Your task to perform on an android device: Open sound settings Image 0: 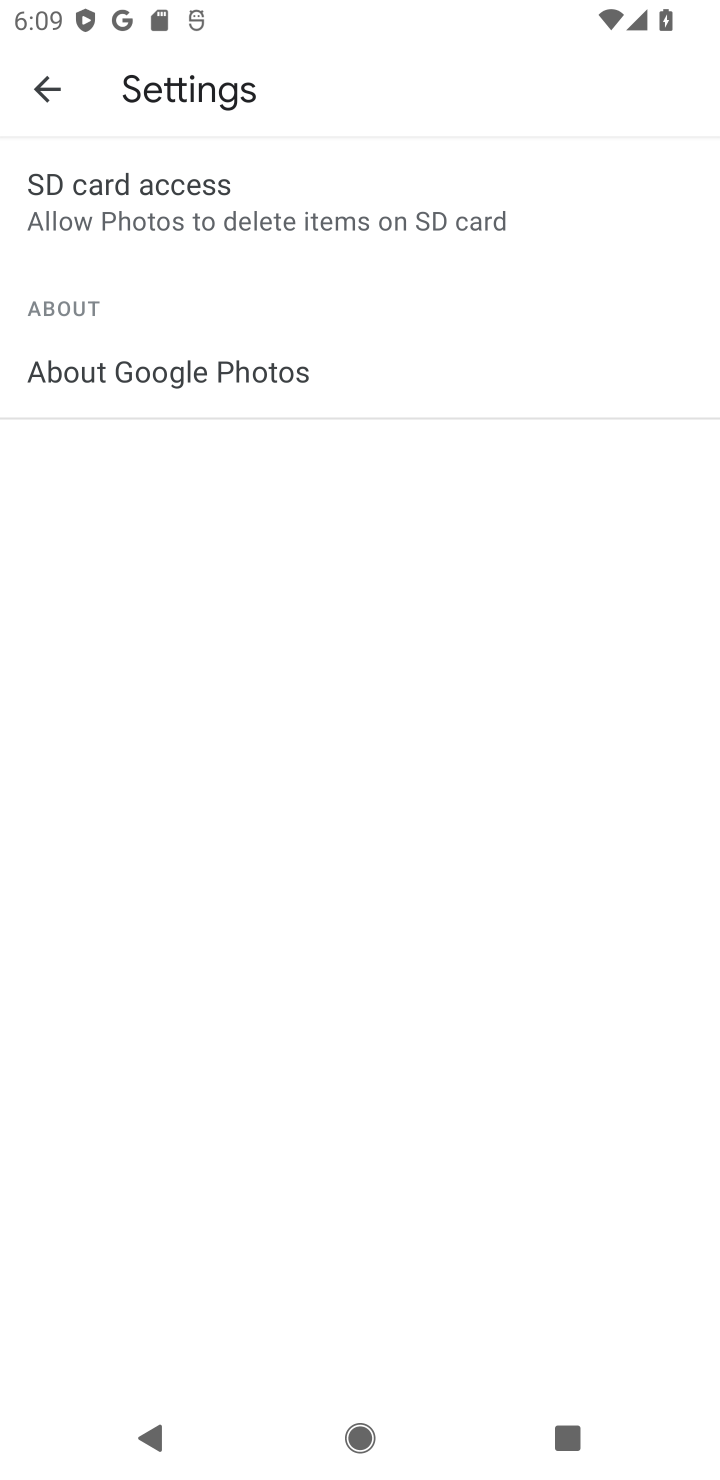
Step 0: press home button
Your task to perform on an android device: Open sound settings Image 1: 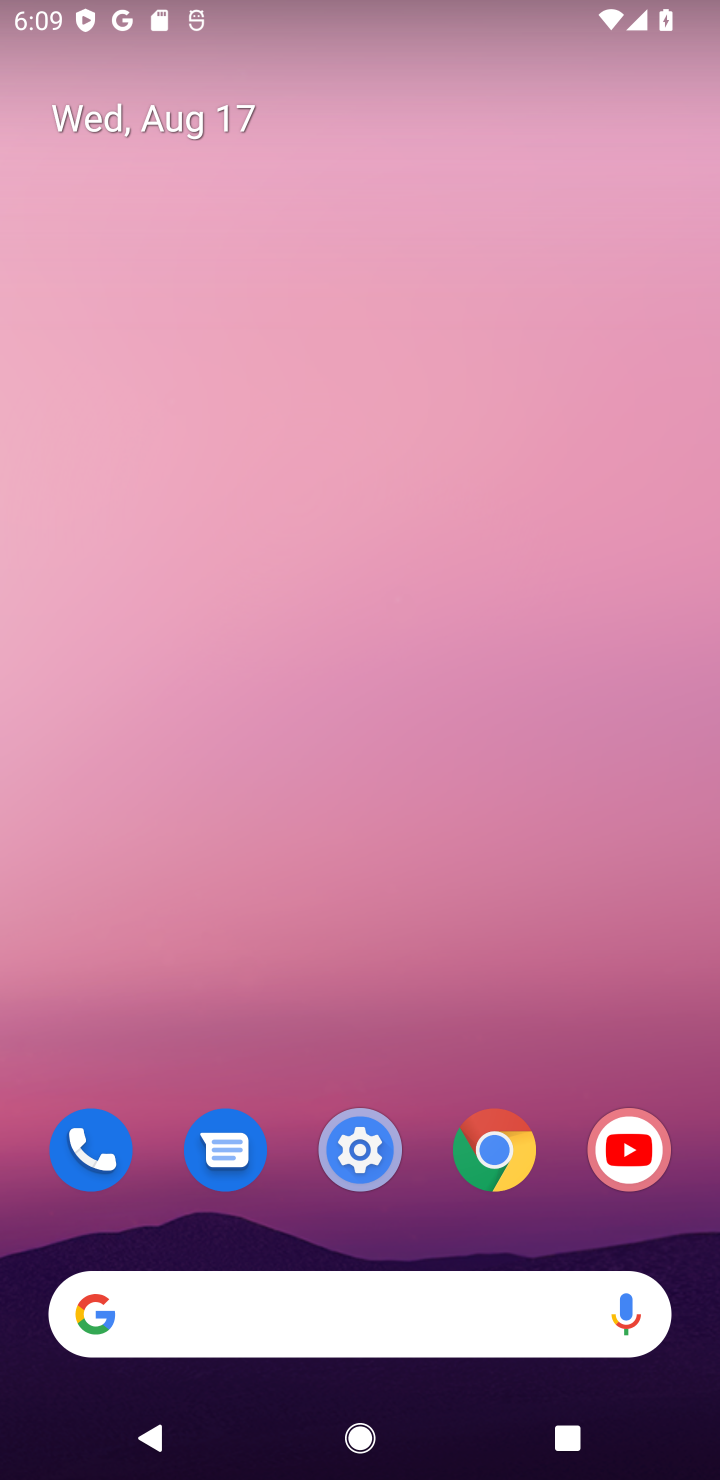
Step 1: drag from (296, 1001) to (299, 368)
Your task to perform on an android device: Open sound settings Image 2: 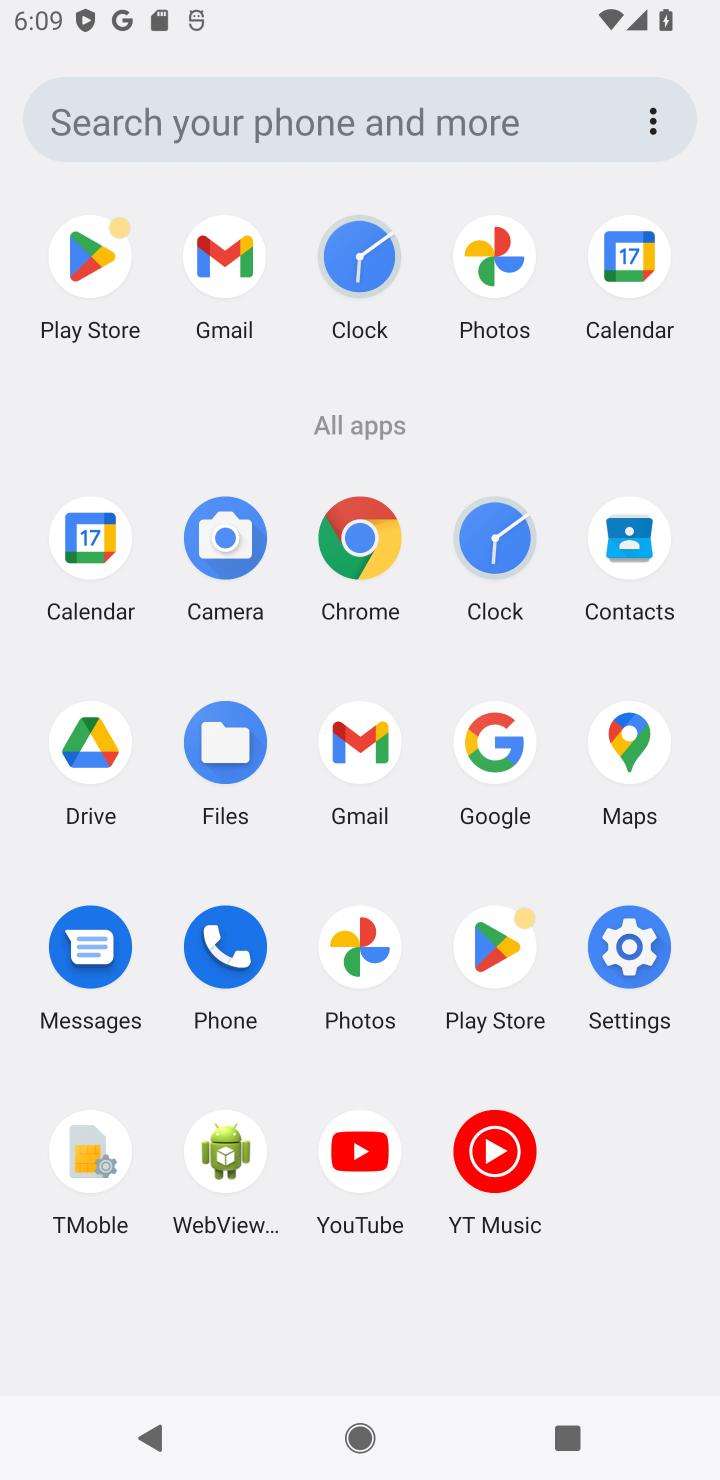
Step 2: click (630, 973)
Your task to perform on an android device: Open sound settings Image 3: 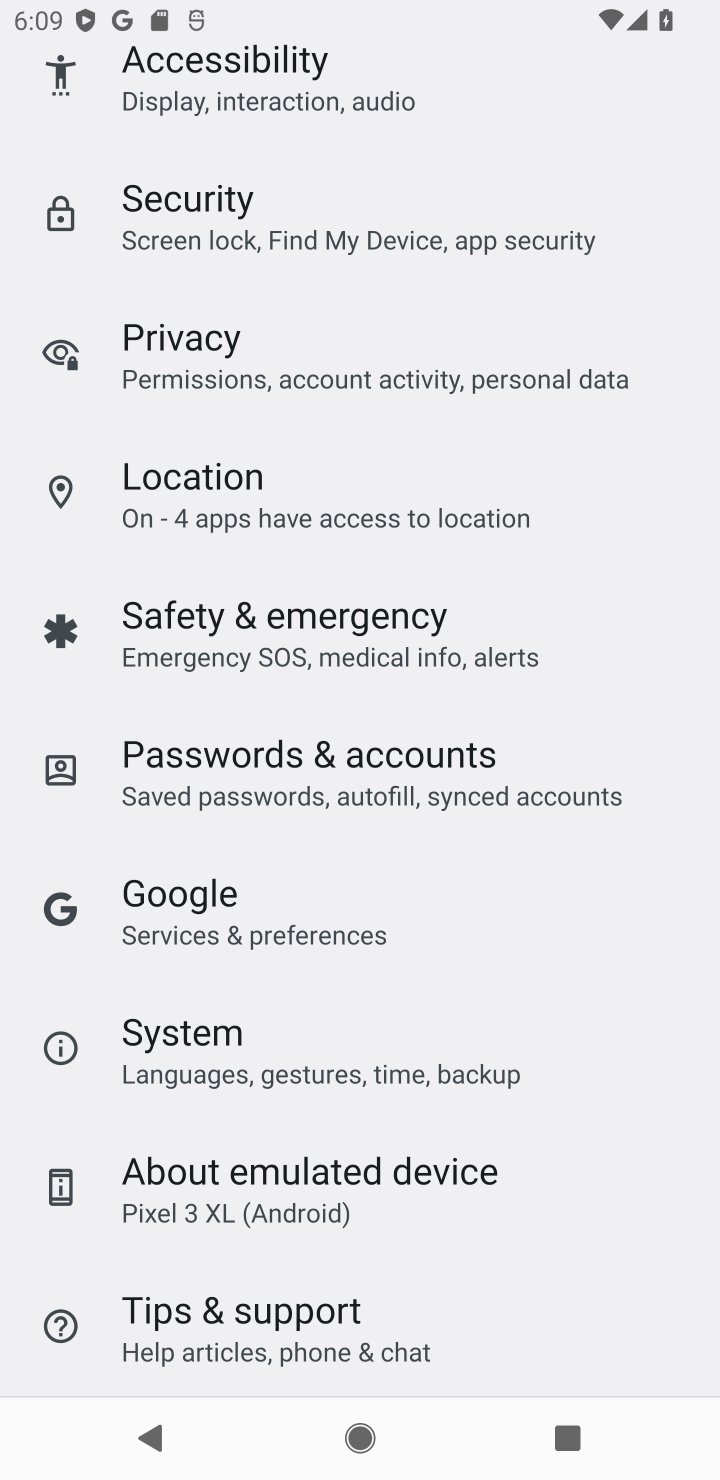
Step 3: drag from (244, 1306) to (199, 683)
Your task to perform on an android device: Open sound settings Image 4: 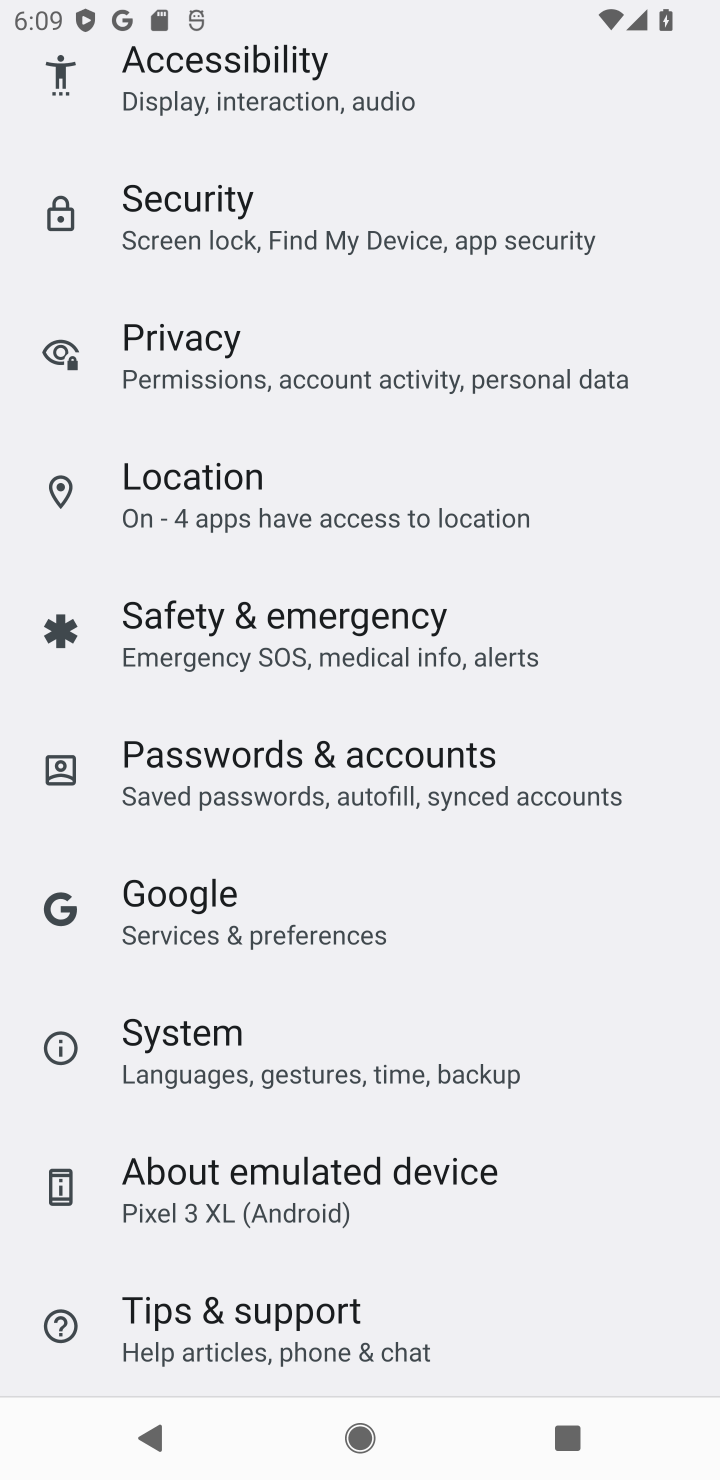
Step 4: drag from (197, 177) to (264, 1036)
Your task to perform on an android device: Open sound settings Image 5: 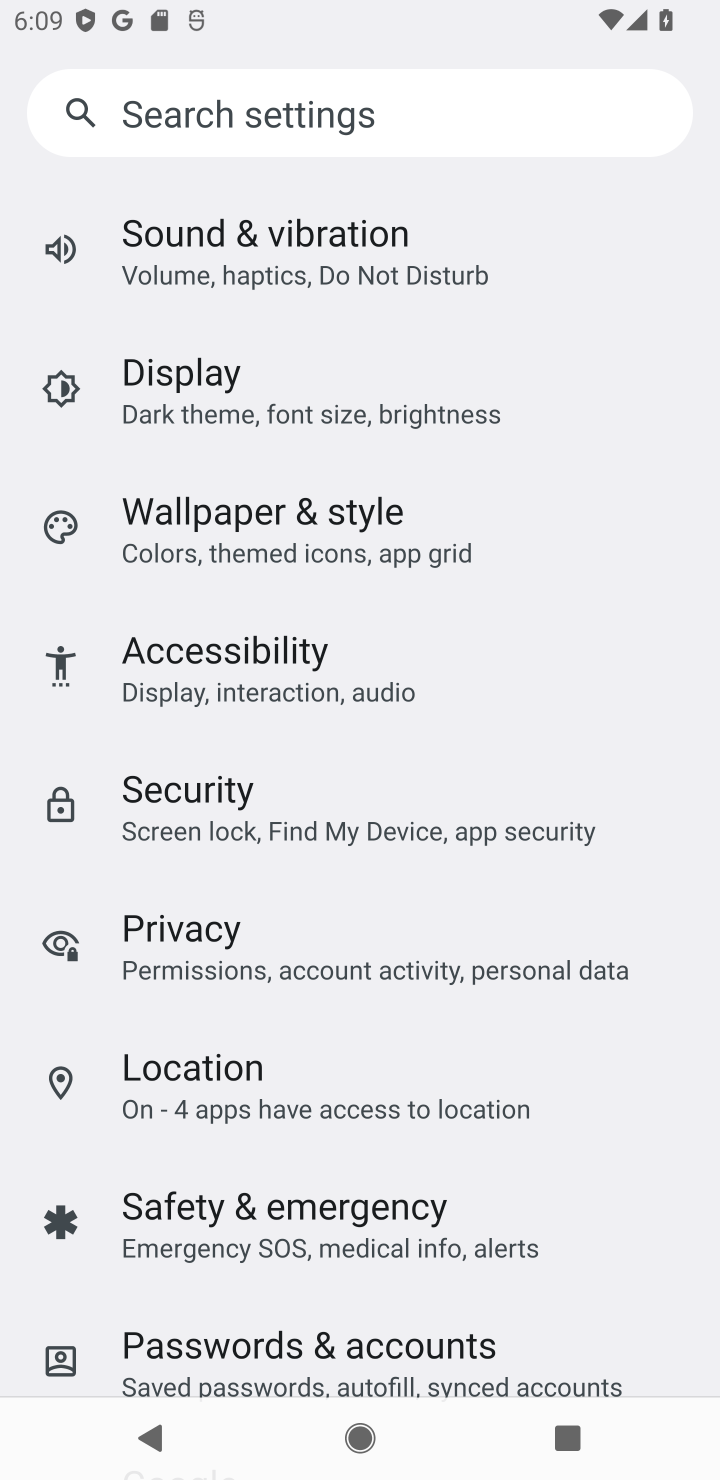
Step 5: drag from (208, 246) to (263, 930)
Your task to perform on an android device: Open sound settings Image 6: 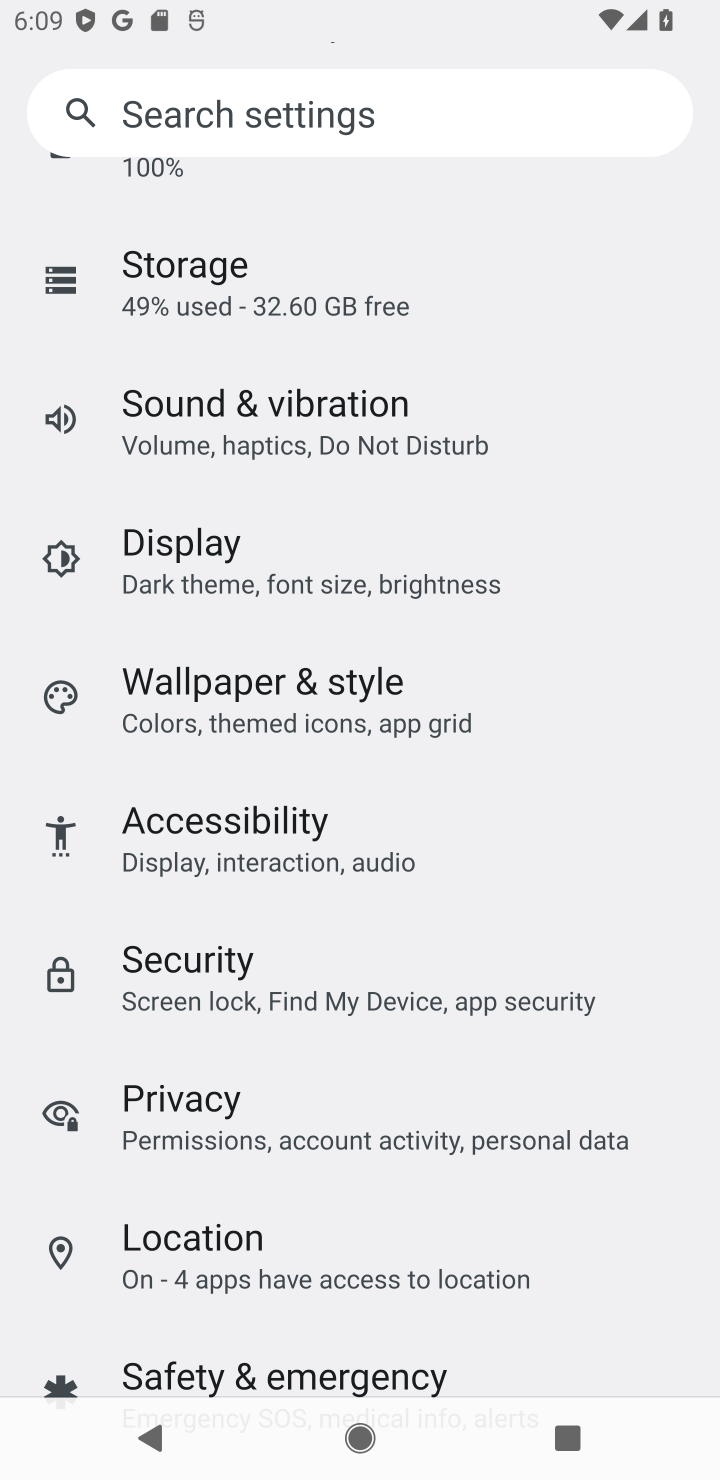
Step 6: click (196, 422)
Your task to perform on an android device: Open sound settings Image 7: 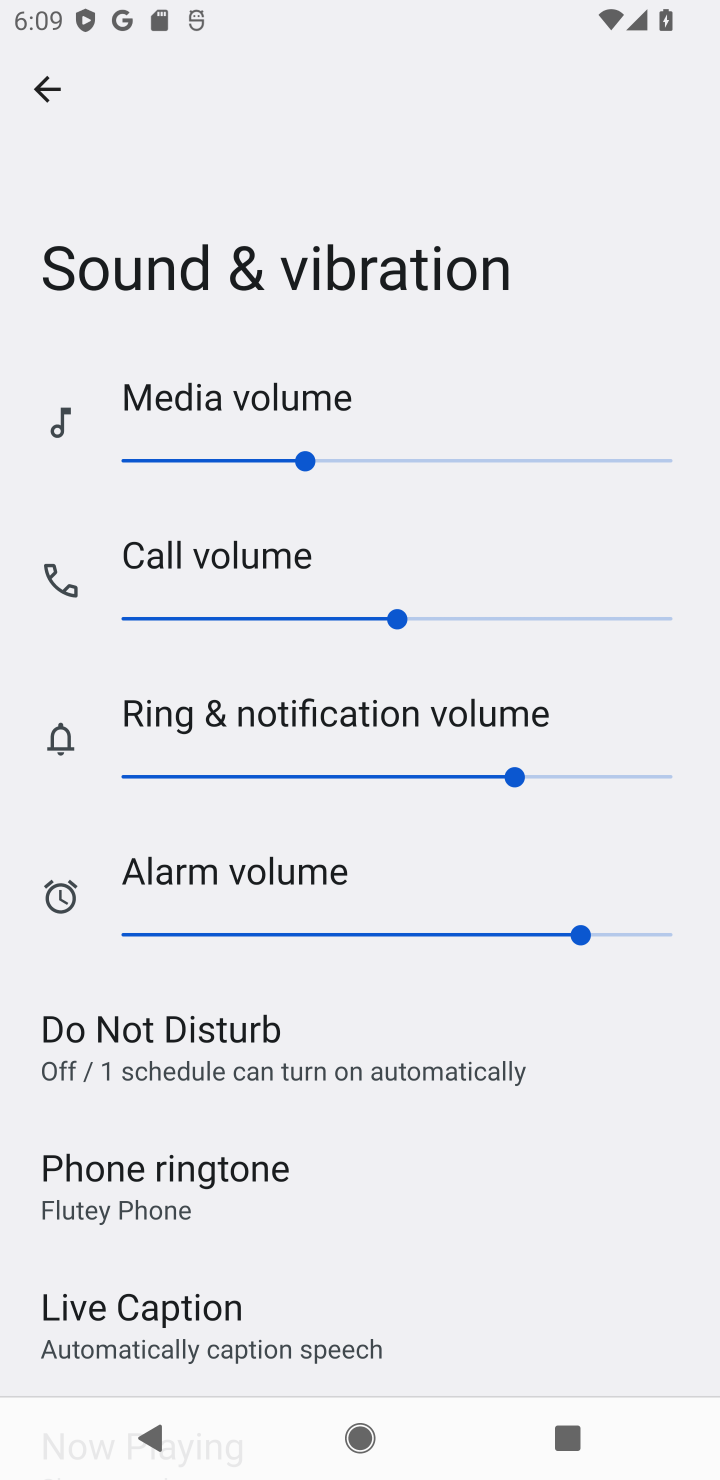
Step 7: task complete